Your task to perform on an android device: add a contact Image 0: 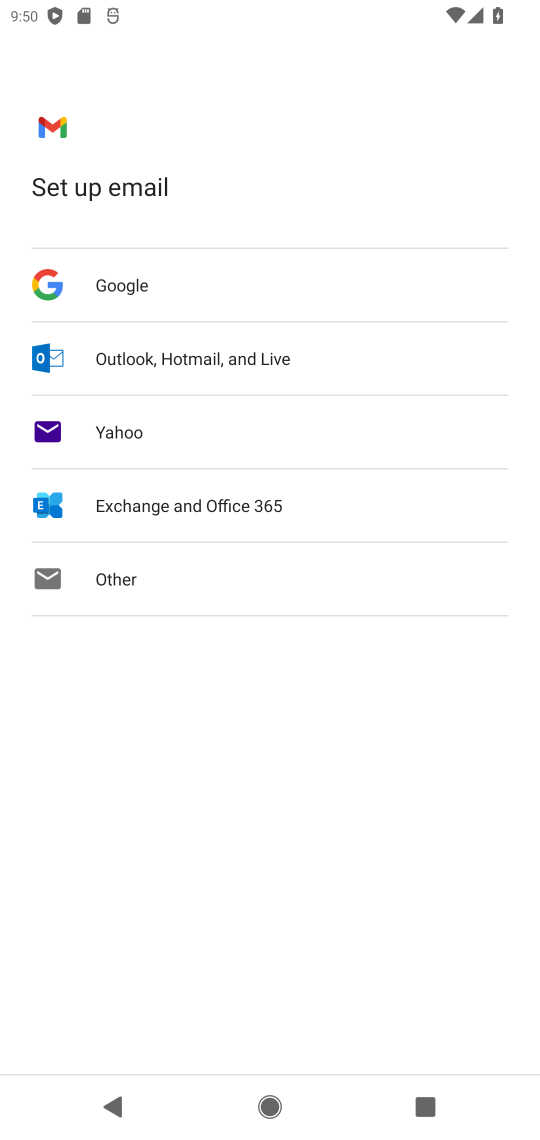
Step 0: press home button
Your task to perform on an android device: add a contact Image 1: 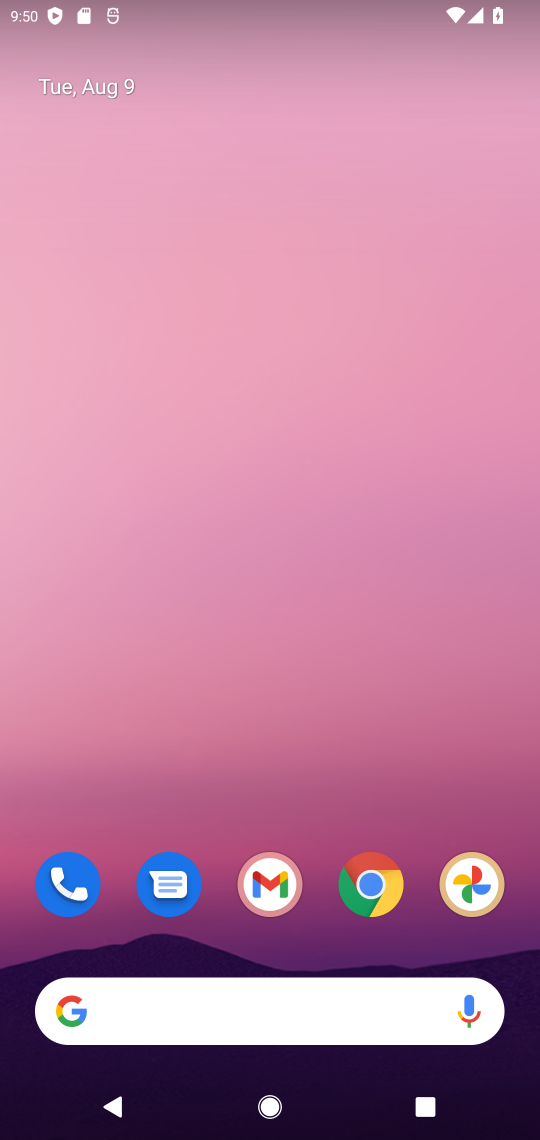
Step 1: drag from (249, 1018) to (275, 168)
Your task to perform on an android device: add a contact Image 2: 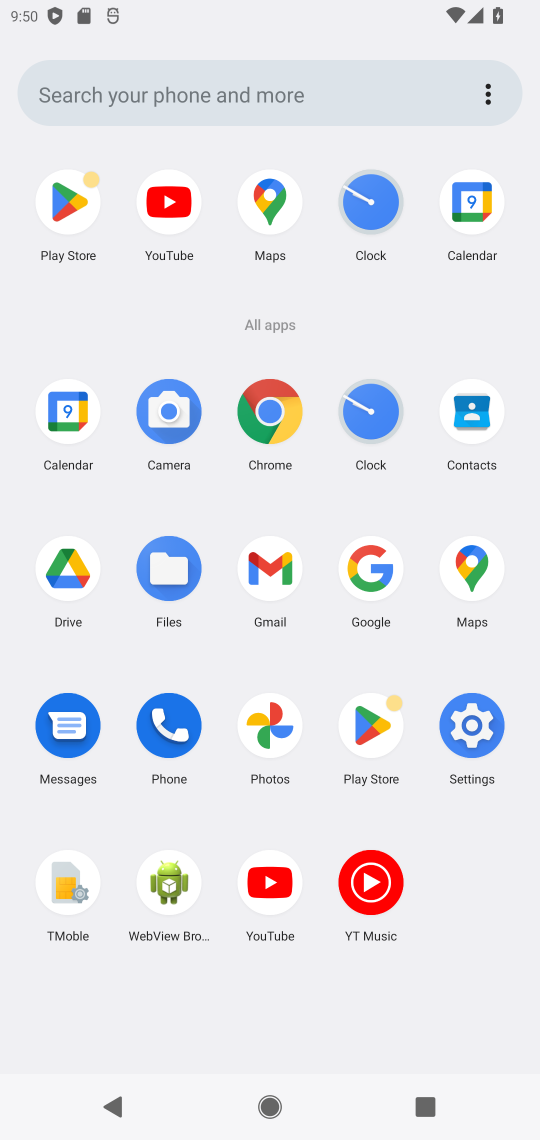
Step 2: click (479, 406)
Your task to perform on an android device: add a contact Image 3: 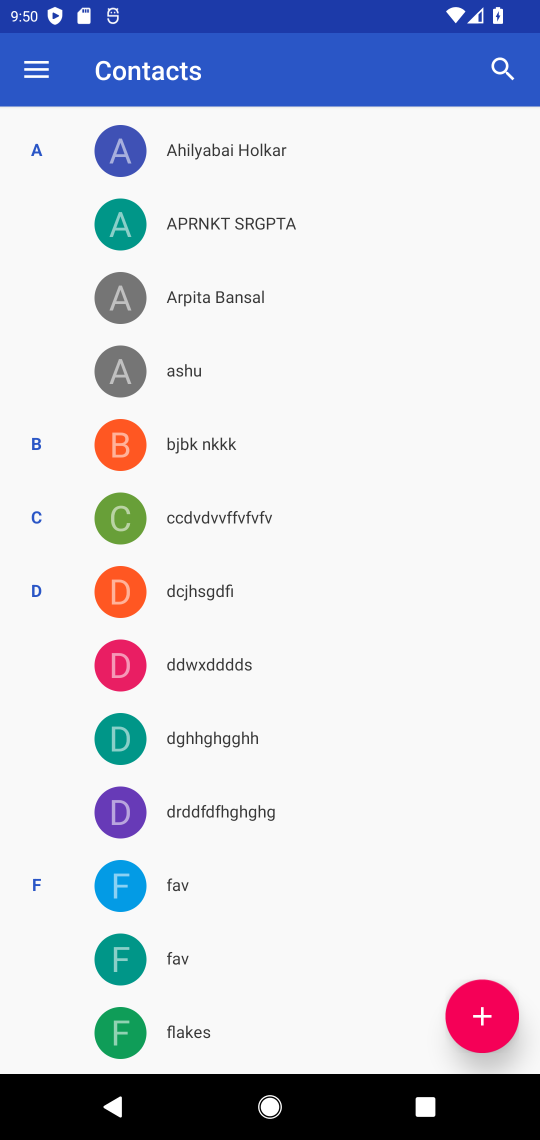
Step 3: click (485, 1015)
Your task to perform on an android device: add a contact Image 4: 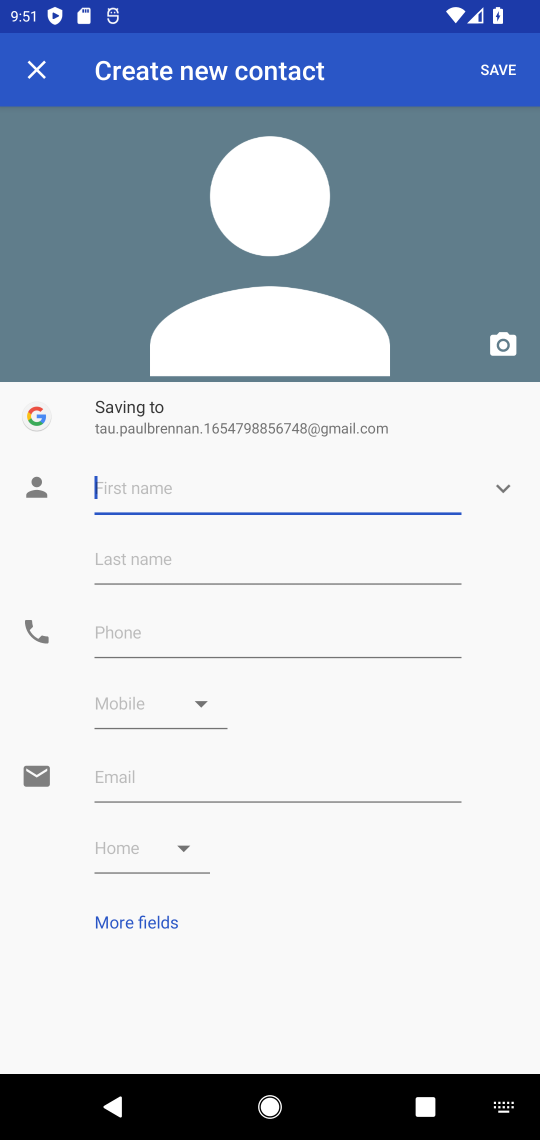
Step 4: type "gajanand"
Your task to perform on an android device: add a contact Image 5: 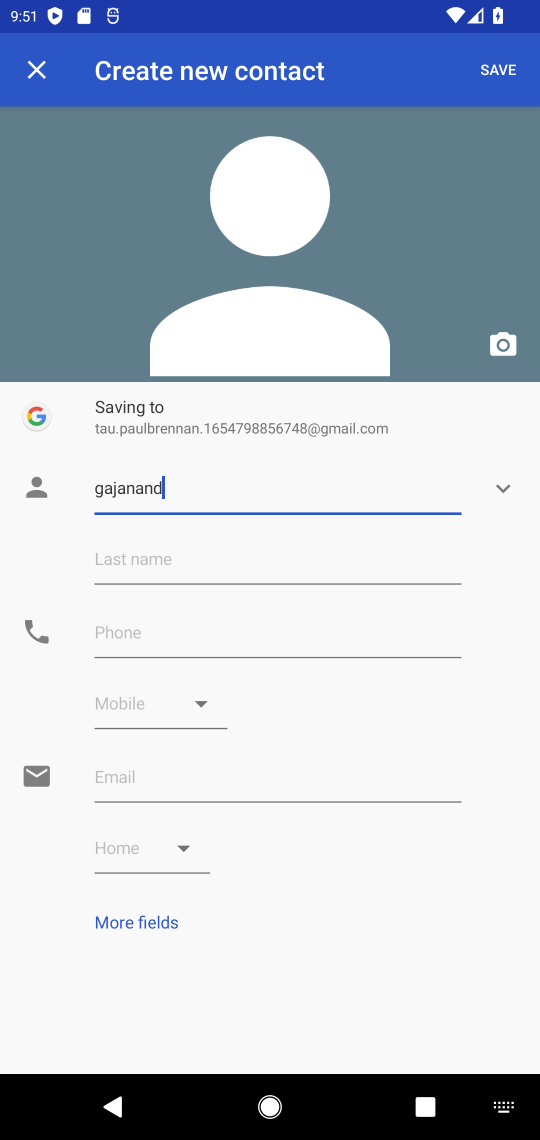
Step 5: click (370, 567)
Your task to perform on an android device: add a contact Image 6: 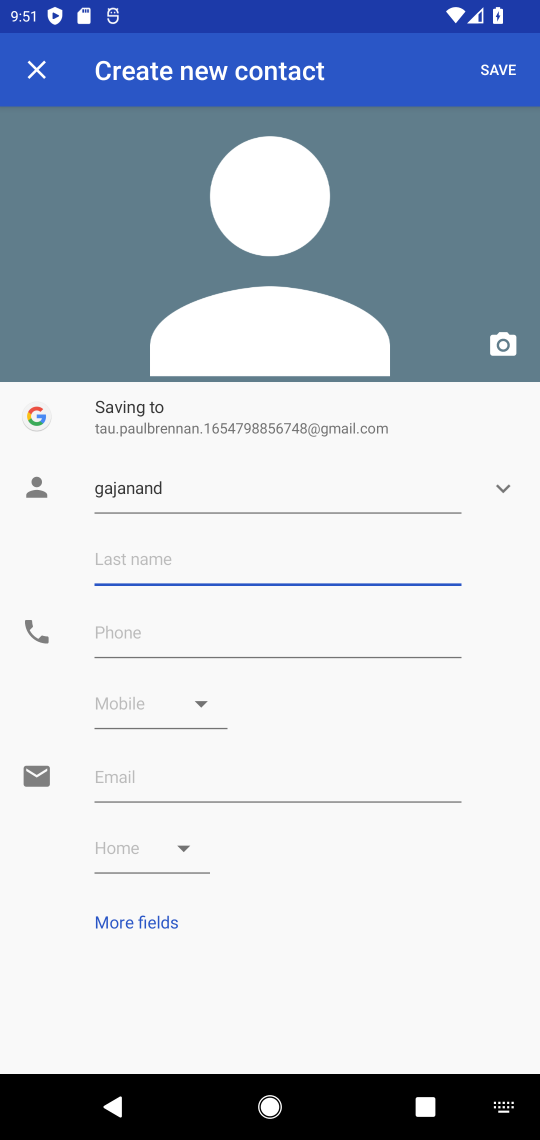
Step 6: type "Arya"
Your task to perform on an android device: add a contact Image 7: 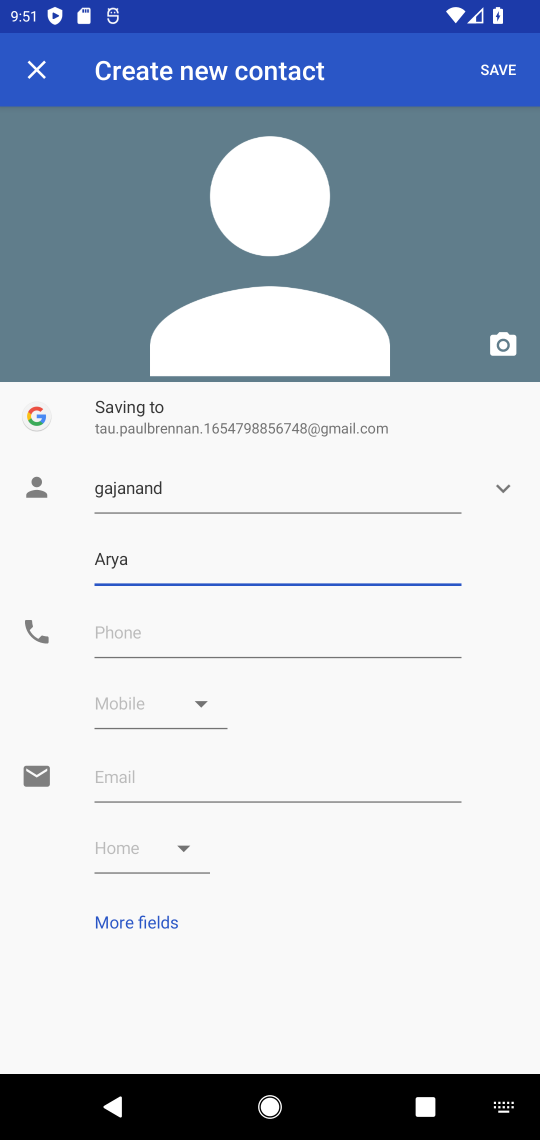
Step 7: click (269, 627)
Your task to perform on an android device: add a contact Image 8: 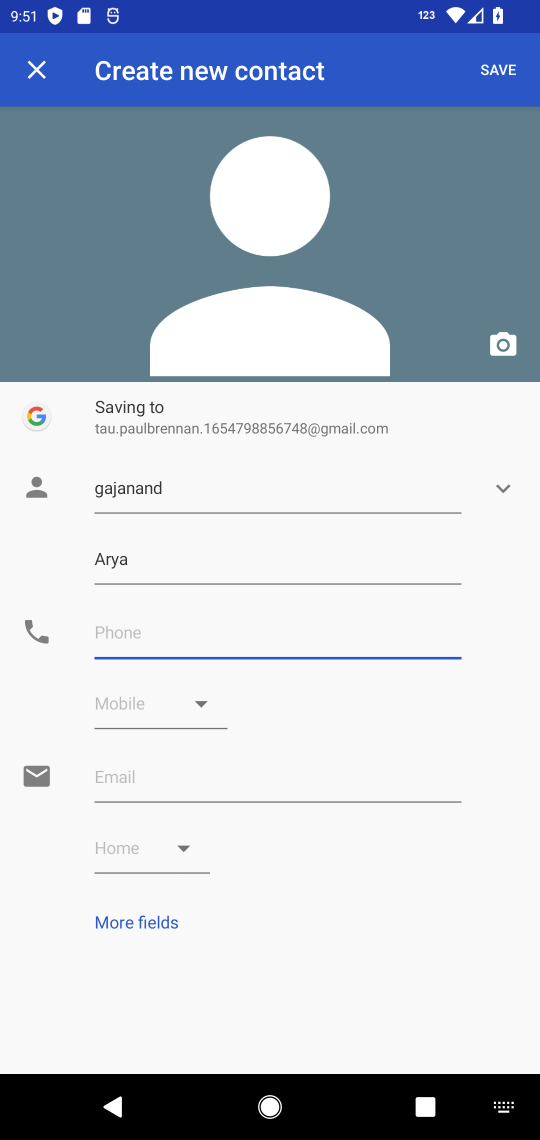
Step 8: type "0998877665544"
Your task to perform on an android device: add a contact Image 9: 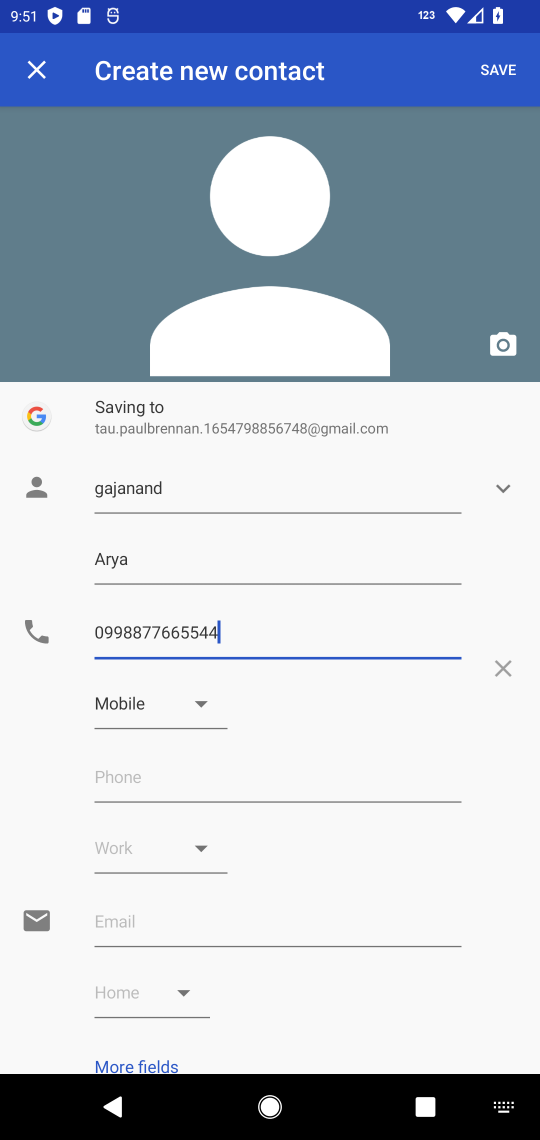
Step 9: click (500, 64)
Your task to perform on an android device: add a contact Image 10: 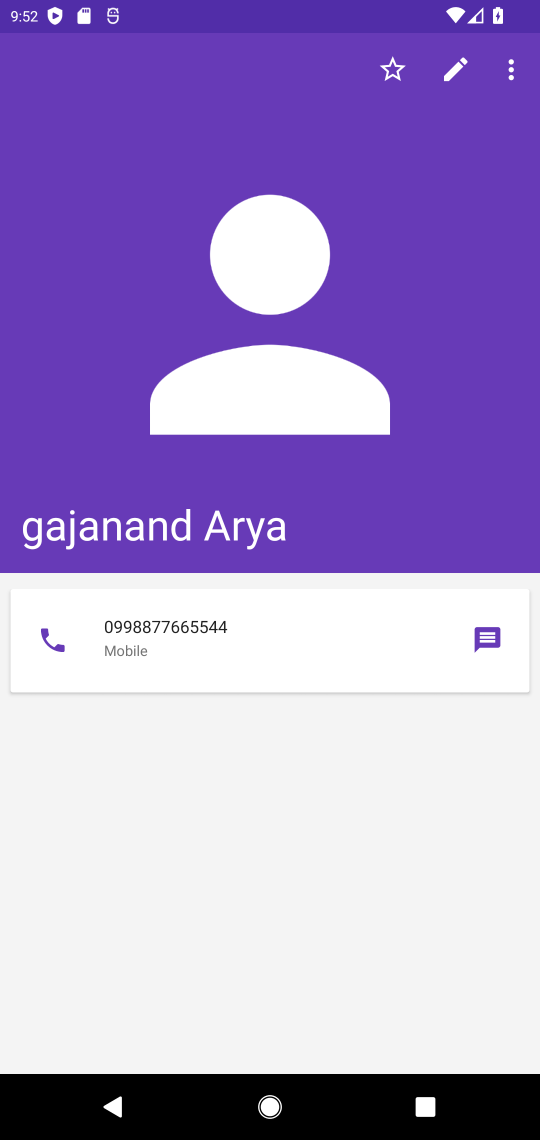
Step 10: task complete